Your task to perform on an android device: Search for flights from NYC to Tokyo Image 0: 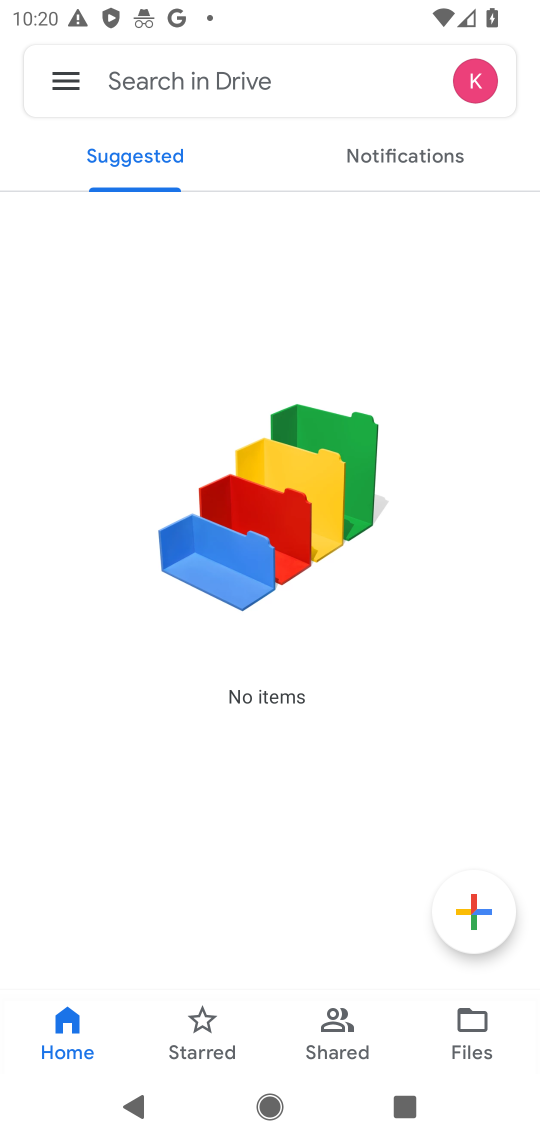
Step 0: press home button
Your task to perform on an android device: Search for flights from NYC to Tokyo Image 1: 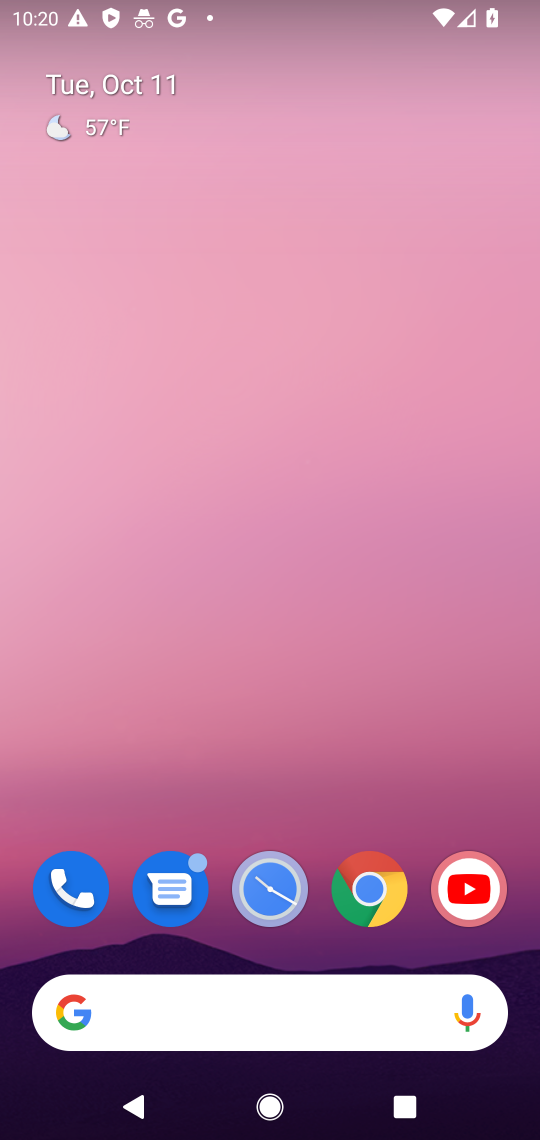
Step 1: click (170, 1016)
Your task to perform on an android device: Search for flights from NYC to Tokyo Image 2: 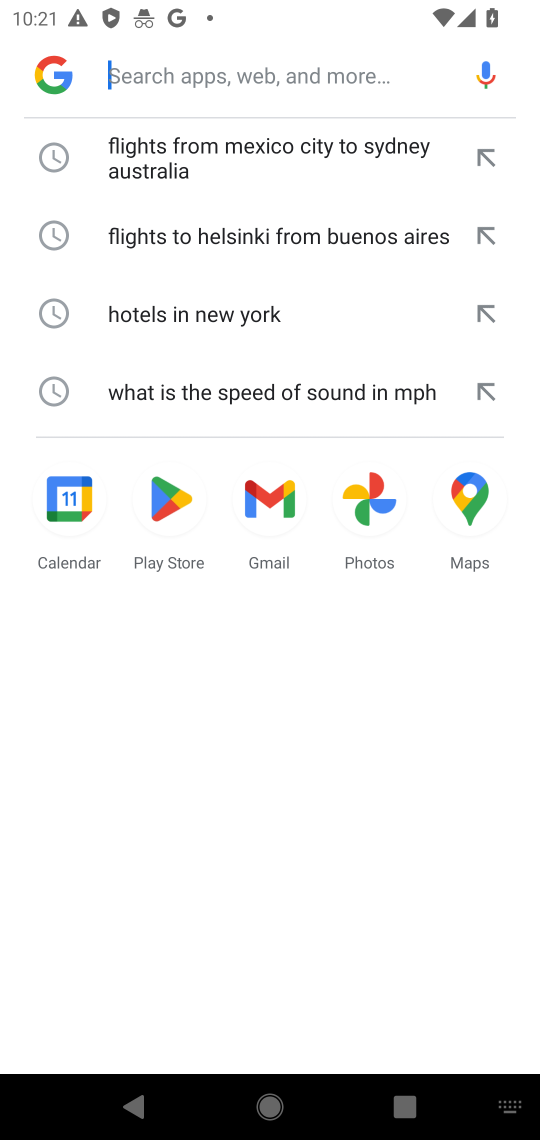
Step 2: click (195, 84)
Your task to perform on an android device: Search for flights from NYC to Tokyo Image 3: 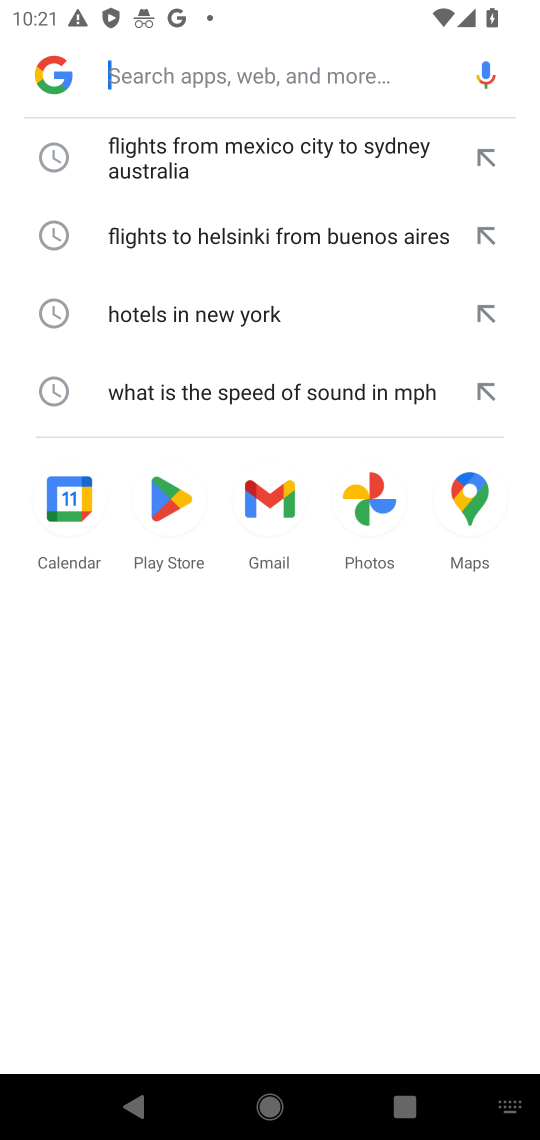
Step 3: type "flights from NYC to Tokyo"
Your task to perform on an android device: Search for flights from NYC to Tokyo Image 4: 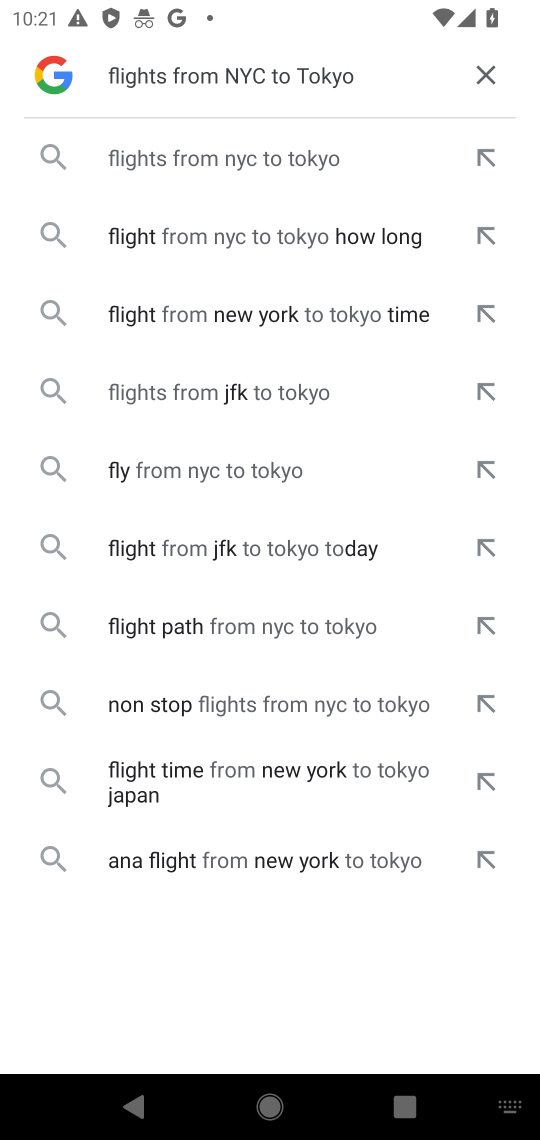
Step 4: click (178, 138)
Your task to perform on an android device: Search for flights from NYC to Tokyo Image 5: 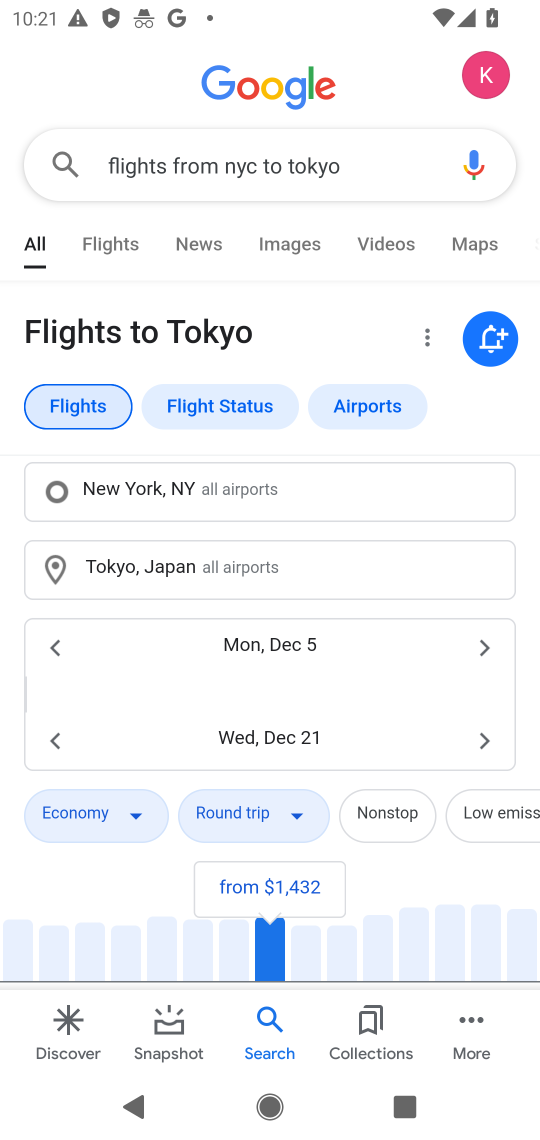
Step 5: task complete